Your task to perform on an android device: open app "Reddit" (install if not already installed), go to login, and select forgot password Image 0: 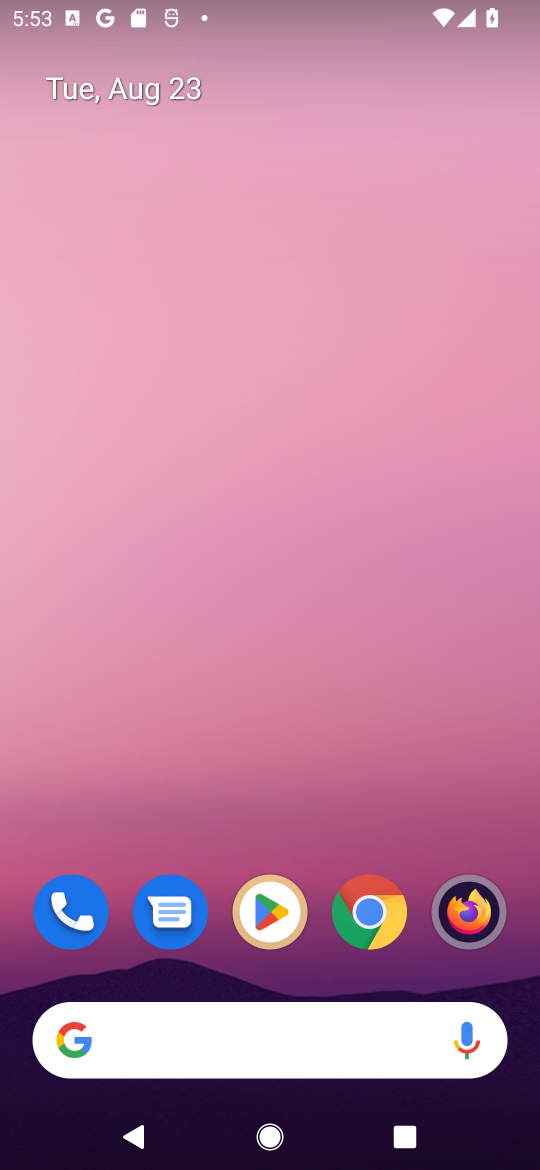
Step 0: drag from (252, 984) to (279, 343)
Your task to perform on an android device: open app "Reddit" (install if not already installed), go to login, and select forgot password Image 1: 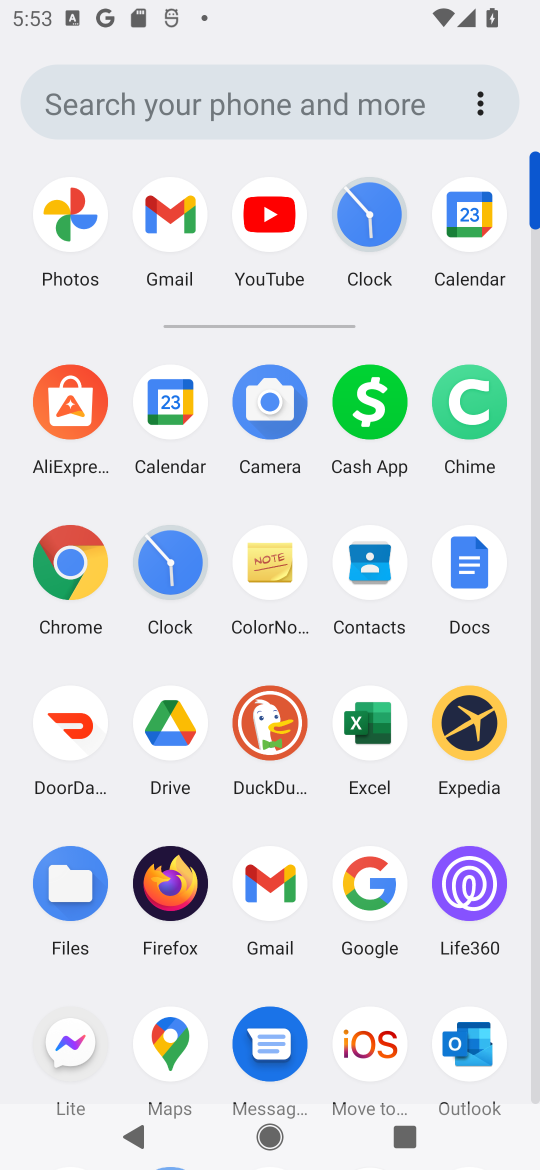
Step 1: press home button
Your task to perform on an android device: open app "Reddit" (install if not already installed), go to login, and select forgot password Image 2: 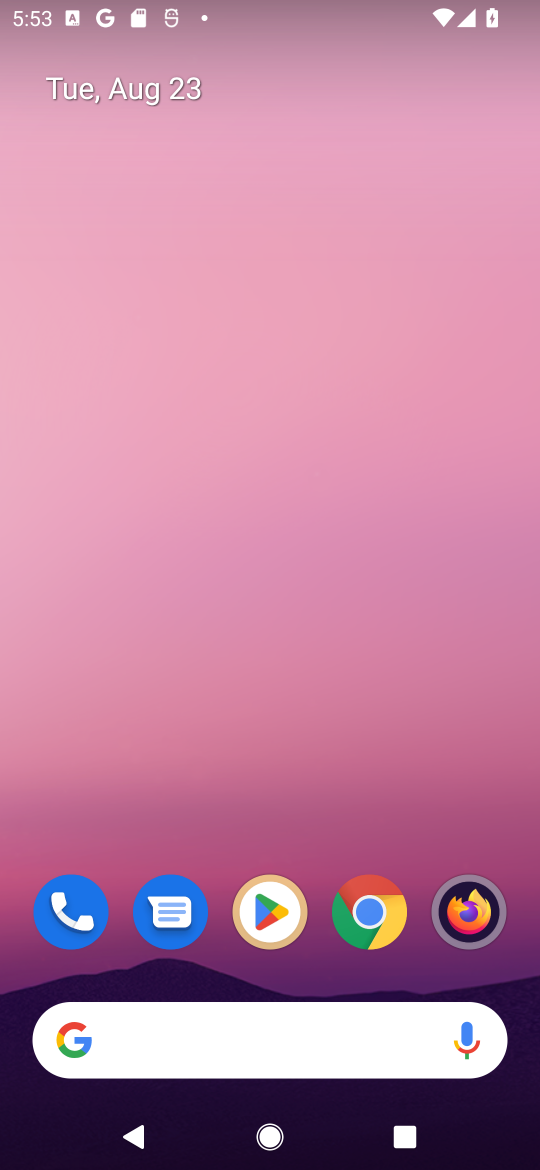
Step 2: click (271, 900)
Your task to perform on an android device: open app "Reddit" (install if not already installed), go to login, and select forgot password Image 3: 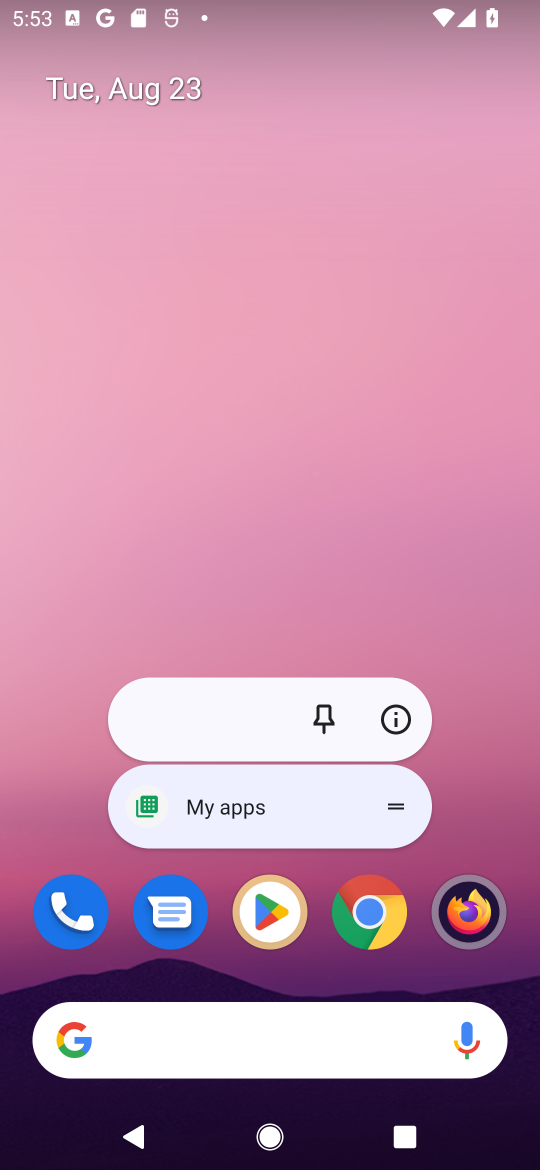
Step 3: click (271, 900)
Your task to perform on an android device: open app "Reddit" (install if not already installed), go to login, and select forgot password Image 4: 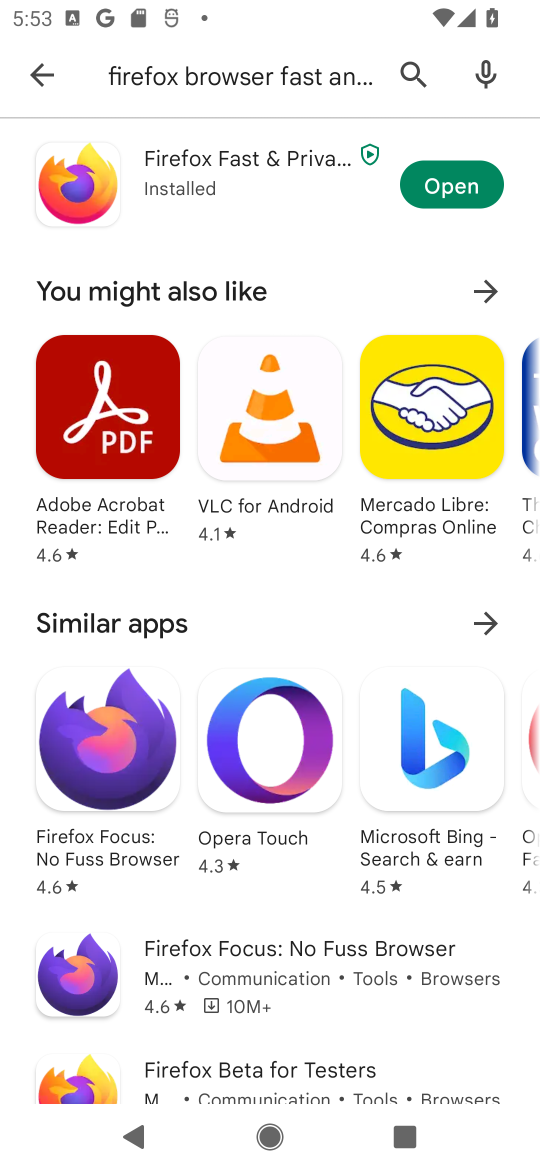
Step 4: click (46, 107)
Your task to perform on an android device: open app "Reddit" (install if not already installed), go to login, and select forgot password Image 5: 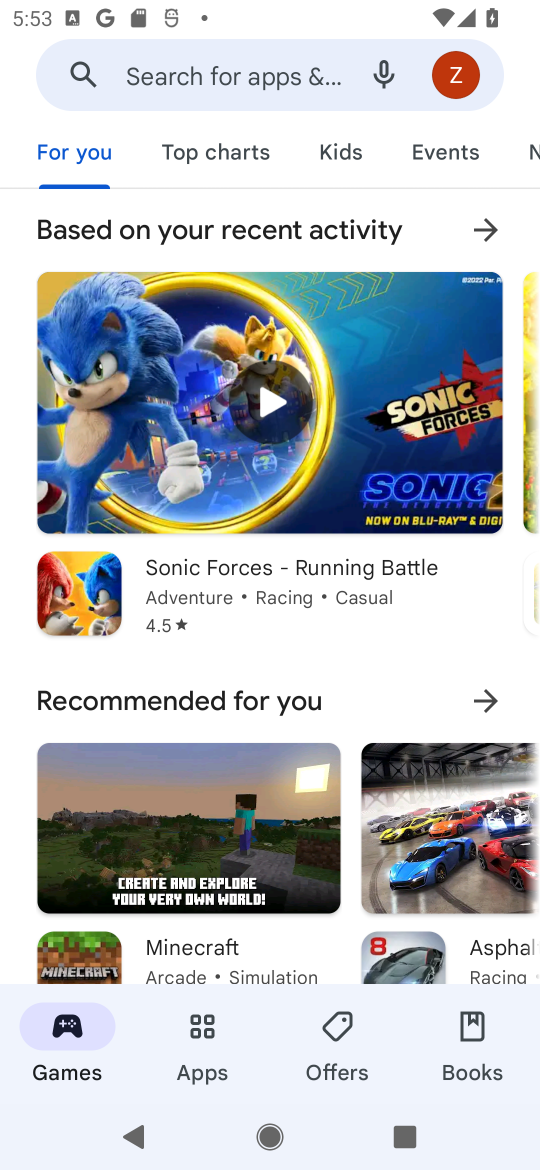
Step 5: click (159, 63)
Your task to perform on an android device: open app "Reddit" (install if not already installed), go to login, and select forgot password Image 6: 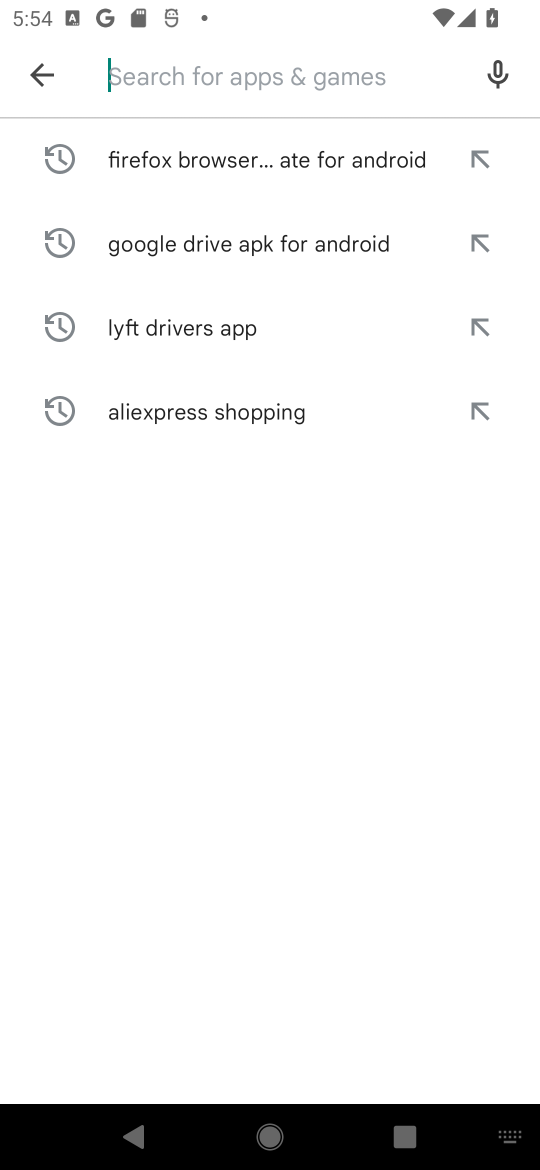
Step 6: type "reddit "
Your task to perform on an android device: open app "Reddit" (install if not already installed), go to login, and select forgot password Image 7: 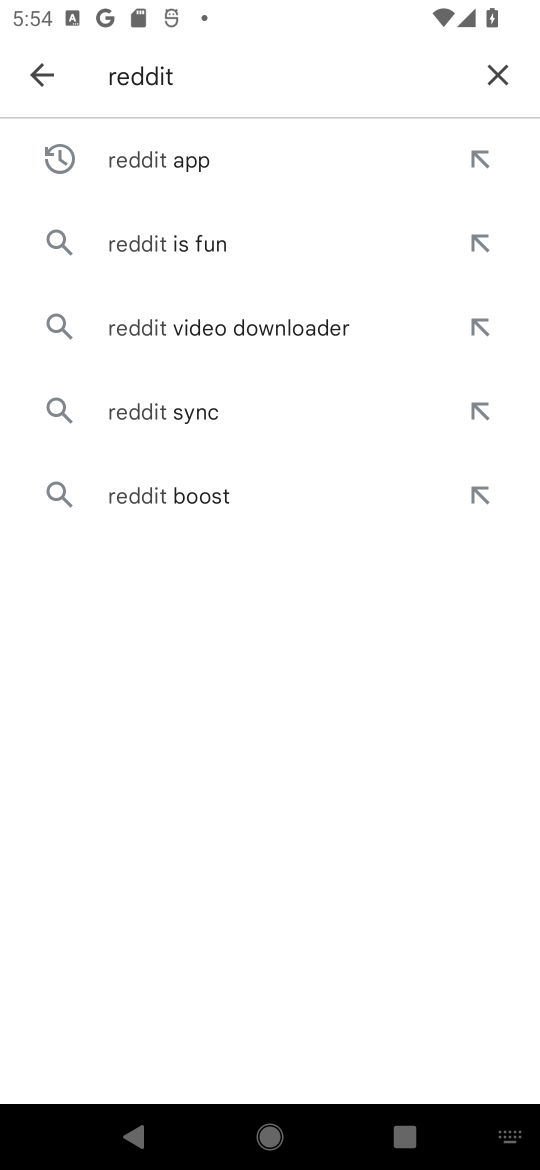
Step 7: click (127, 131)
Your task to perform on an android device: open app "Reddit" (install if not already installed), go to login, and select forgot password Image 8: 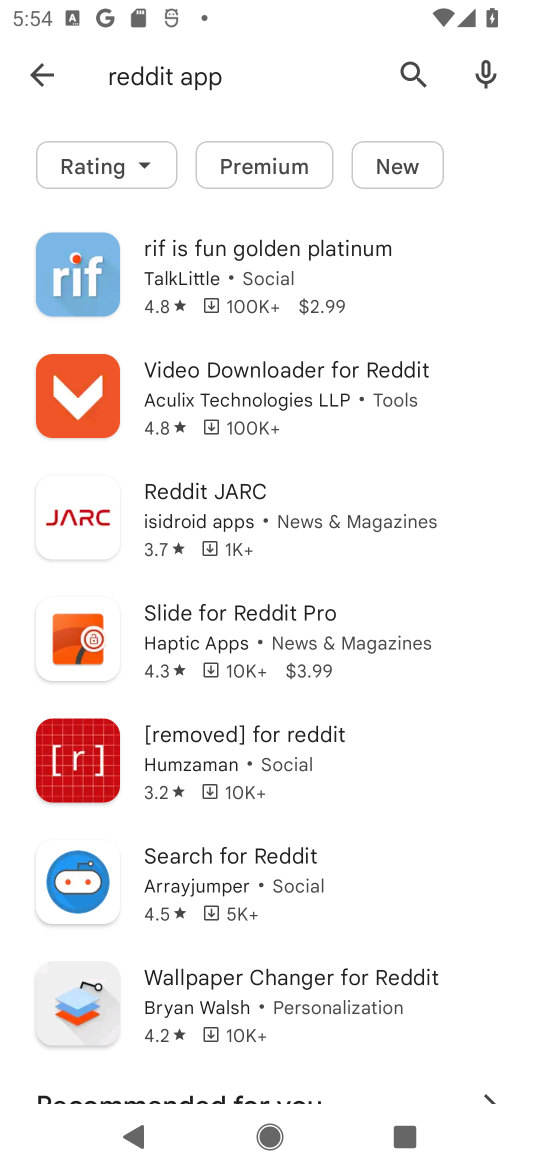
Step 8: click (215, 529)
Your task to perform on an android device: open app "Reddit" (install if not already installed), go to login, and select forgot password Image 9: 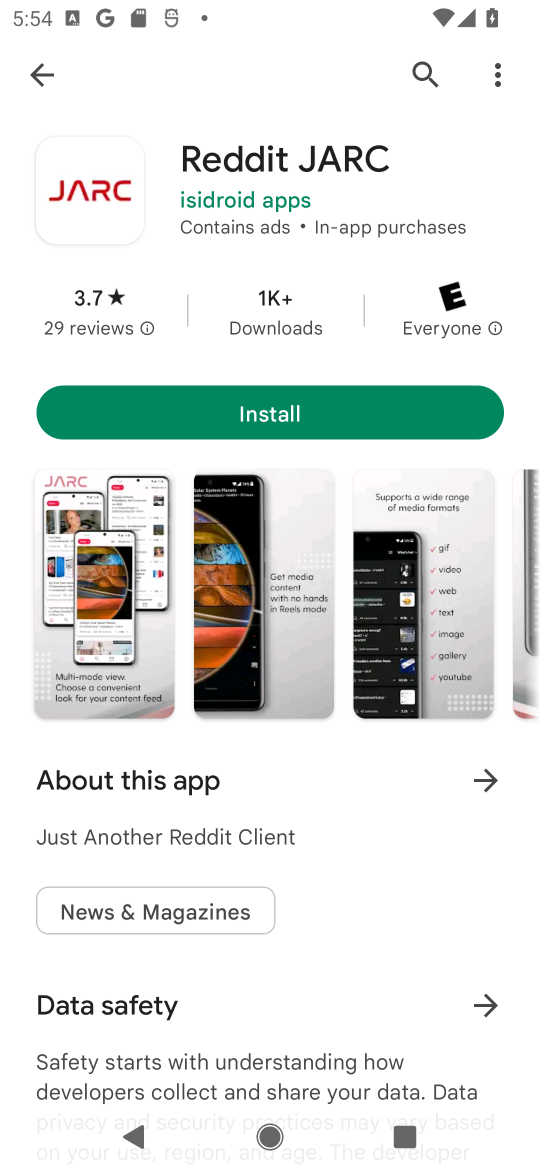
Step 9: click (301, 406)
Your task to perform on an android device: open app "Reddit" (install if not already installed), go to login, and select forgot password Image 10: 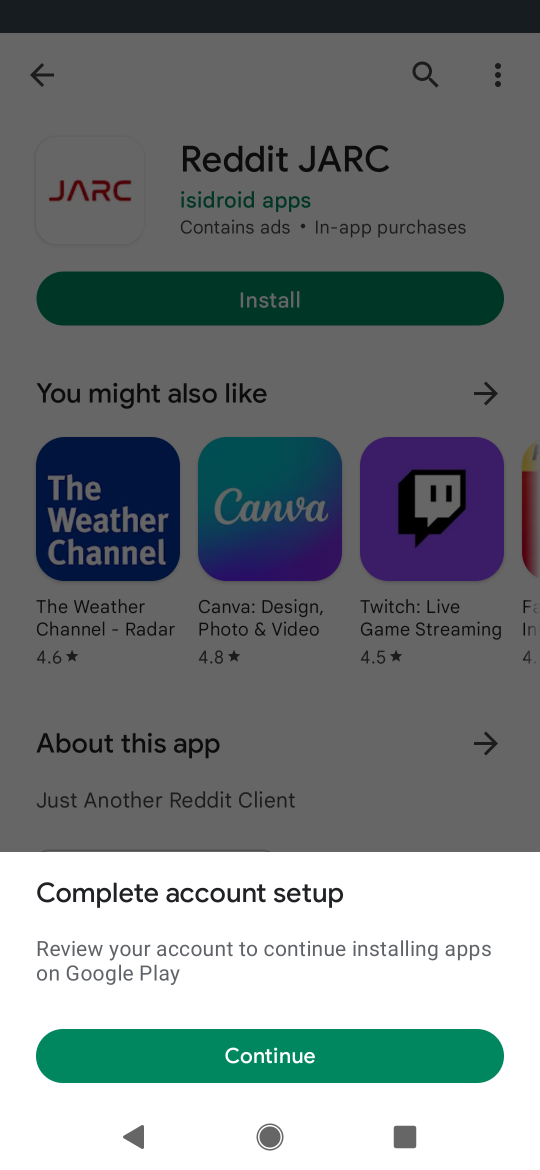
Step 10: task complete